Your task to perform on an android device: change the clock display to show seconds Image 0: 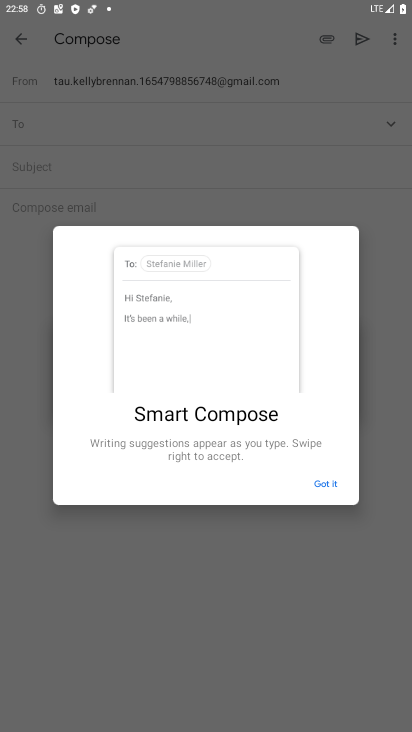
Step 0: press home button
Your task to perform on an android device: change the clock display to show seconds Image 1: 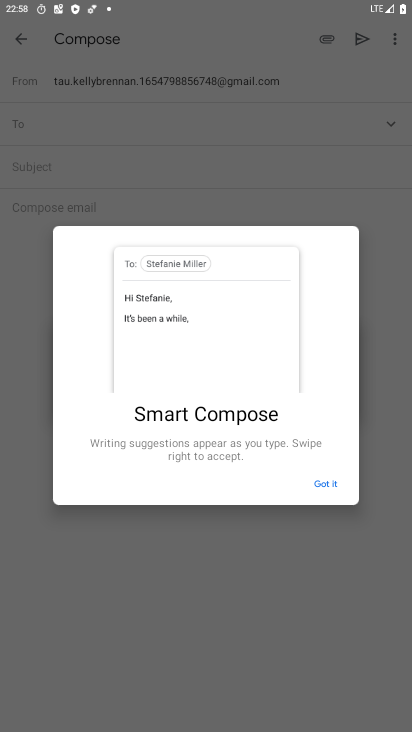
Step 1: press home button
Your task to perform on an android device: change the clock display to show seconds Image 2: 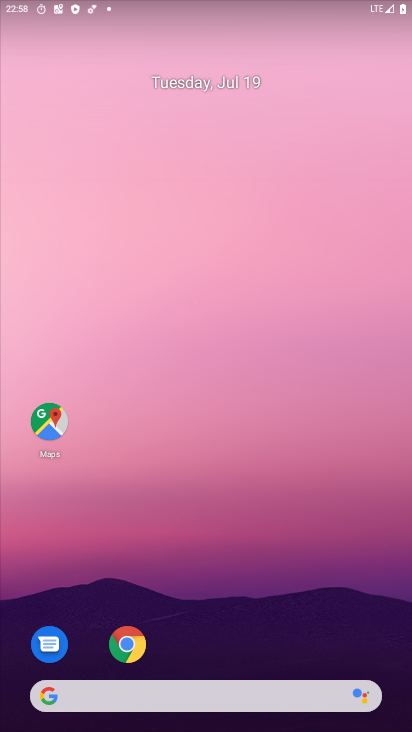
Step 2: press back button
Your task to perform on an android device: change the clock display to show seconds Image 3: 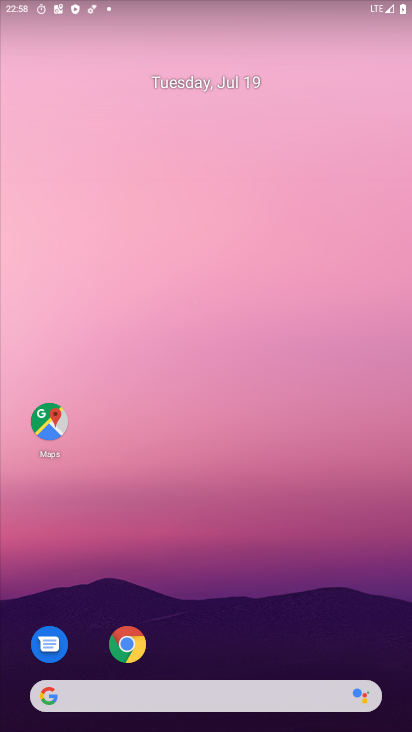
Step 3: drag from (211, 625) to (411, 355)
Your task to perform on an android device: change the clock display to show seconds Image 4: 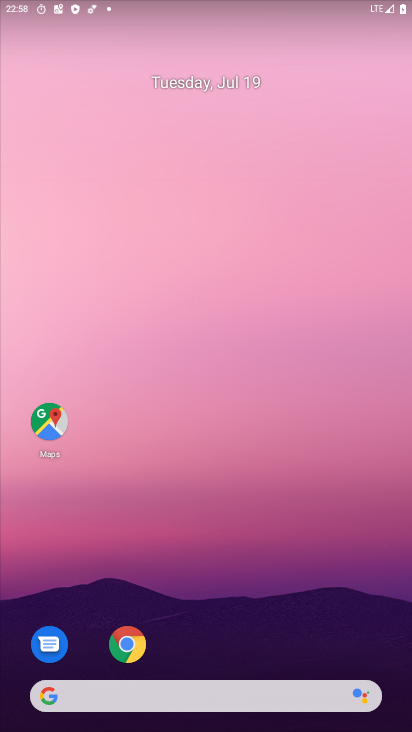
Step 4: drag from (236, 650) to (201, 48)
Your task to perform on an android device: change the clock display to show seconds Image 5: 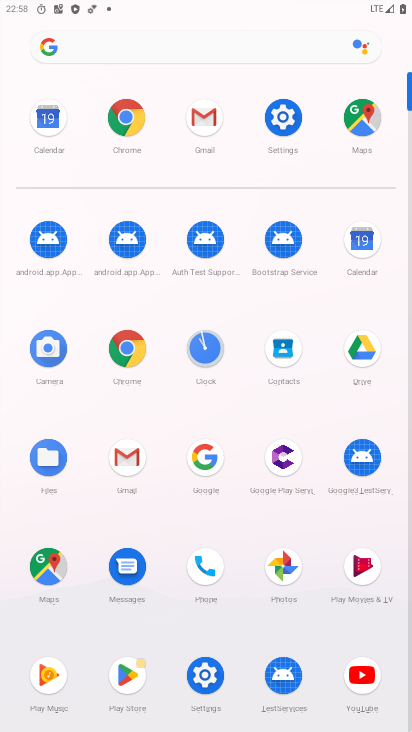
Step 5: click (216, 356)
Your task to perform on an android device: change the clock display to show seconds Image 6: 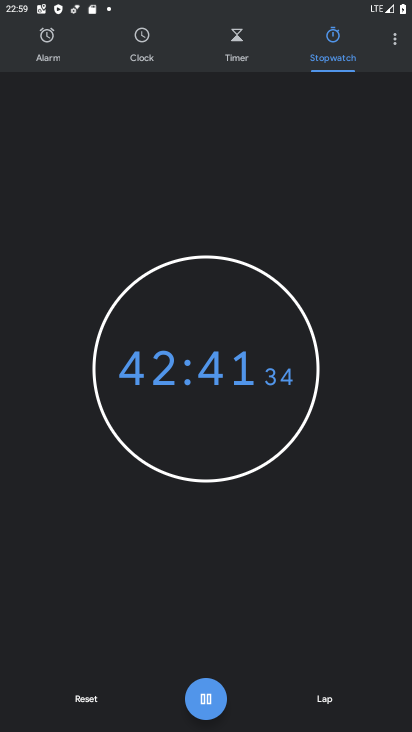
Step 6: click (399, 47)
Your task to perform on an android device: change the clock display to show seconds Image 7: 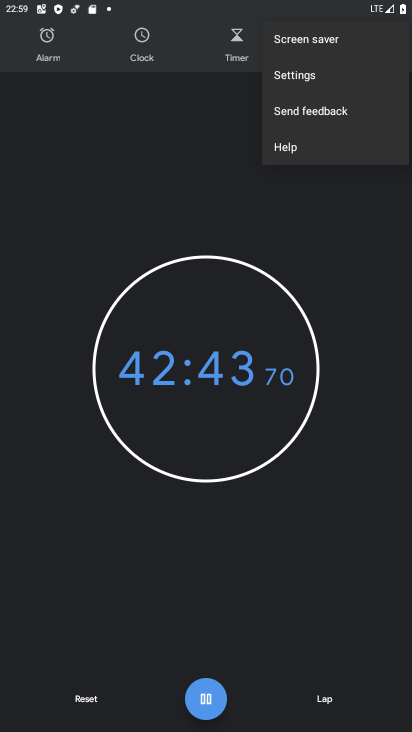
Step 7: click (318, 82)
Your task to perform on an android device: change the clock display to show seconds Image 8: 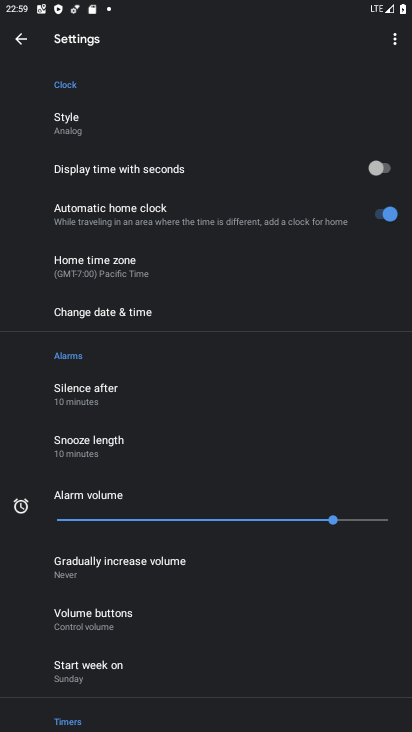
Step 8: click (274, 176)
Your task to perform on an android device: change the clock display to show seconds Image 9: 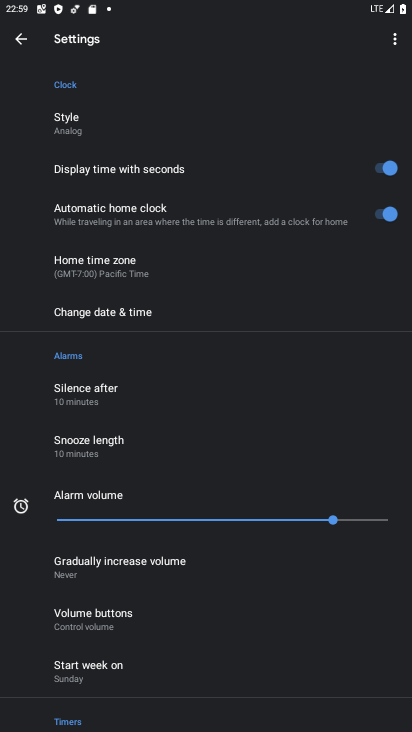
Step 9: task complete